Your task to perform on an android device: Add razer blackwidow to the cart on newegg, then select checkout. Image 0: 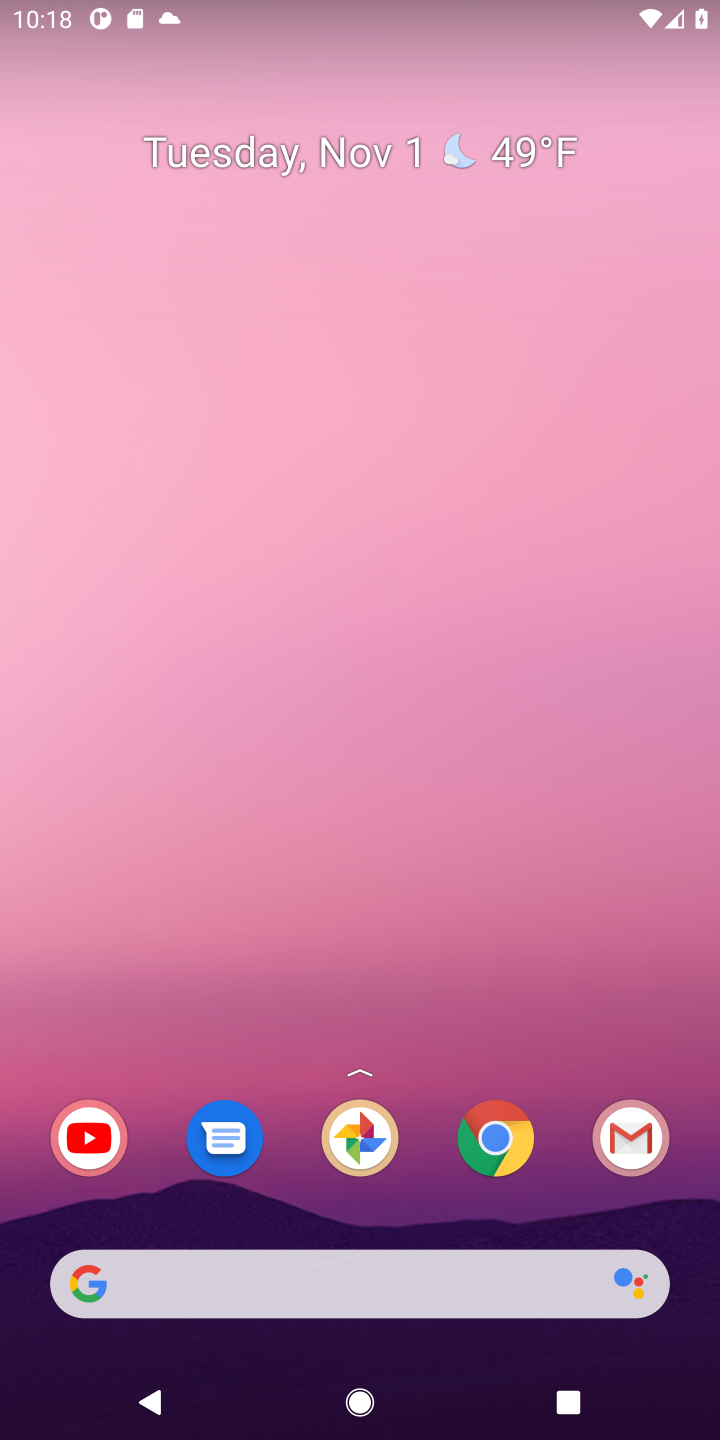
Step 0: click (498, 1141)
Your task to perform on an android device: Add razer blackwidow to the cart on newegg, then select checkout. Image 1: 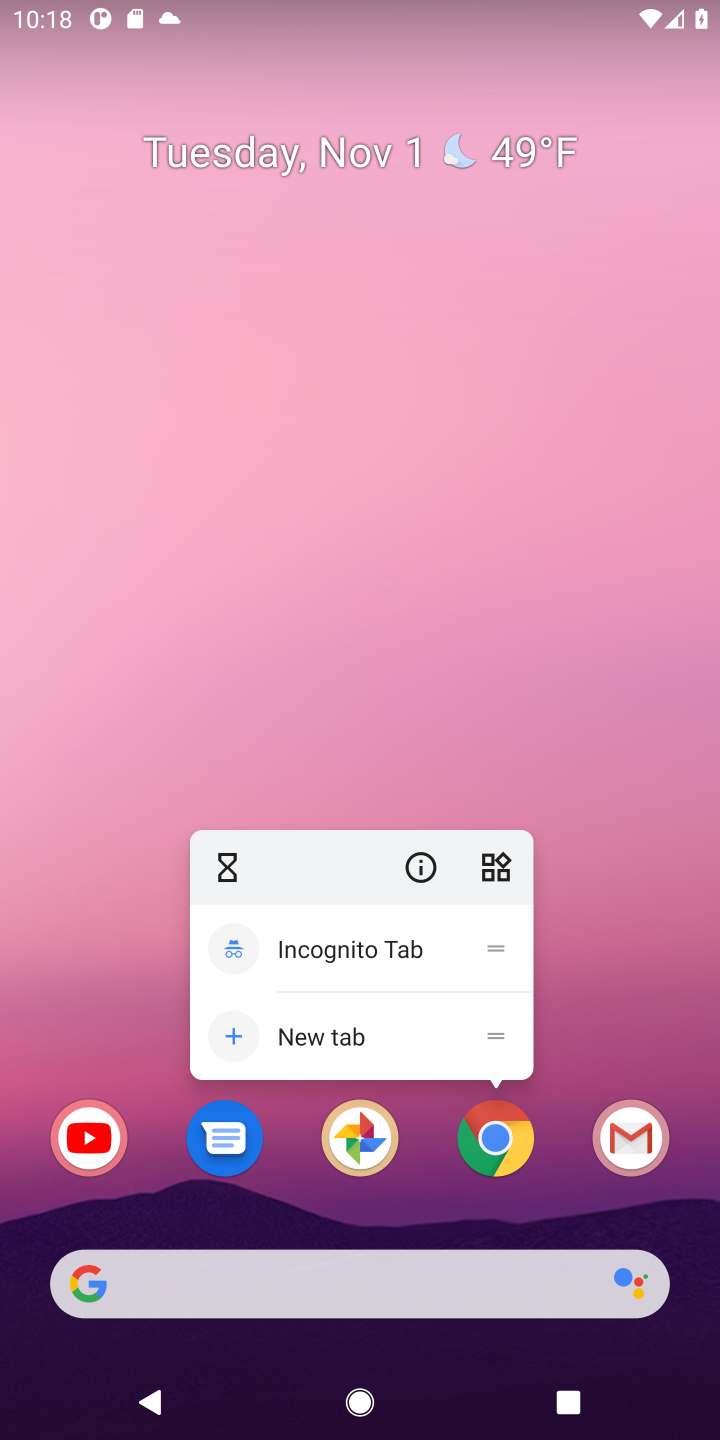
Step 1: click (497, 1136)
Your task to perform on an android device: Add razer blackwidow to the cart on newegg, then select checkout. Image 2: 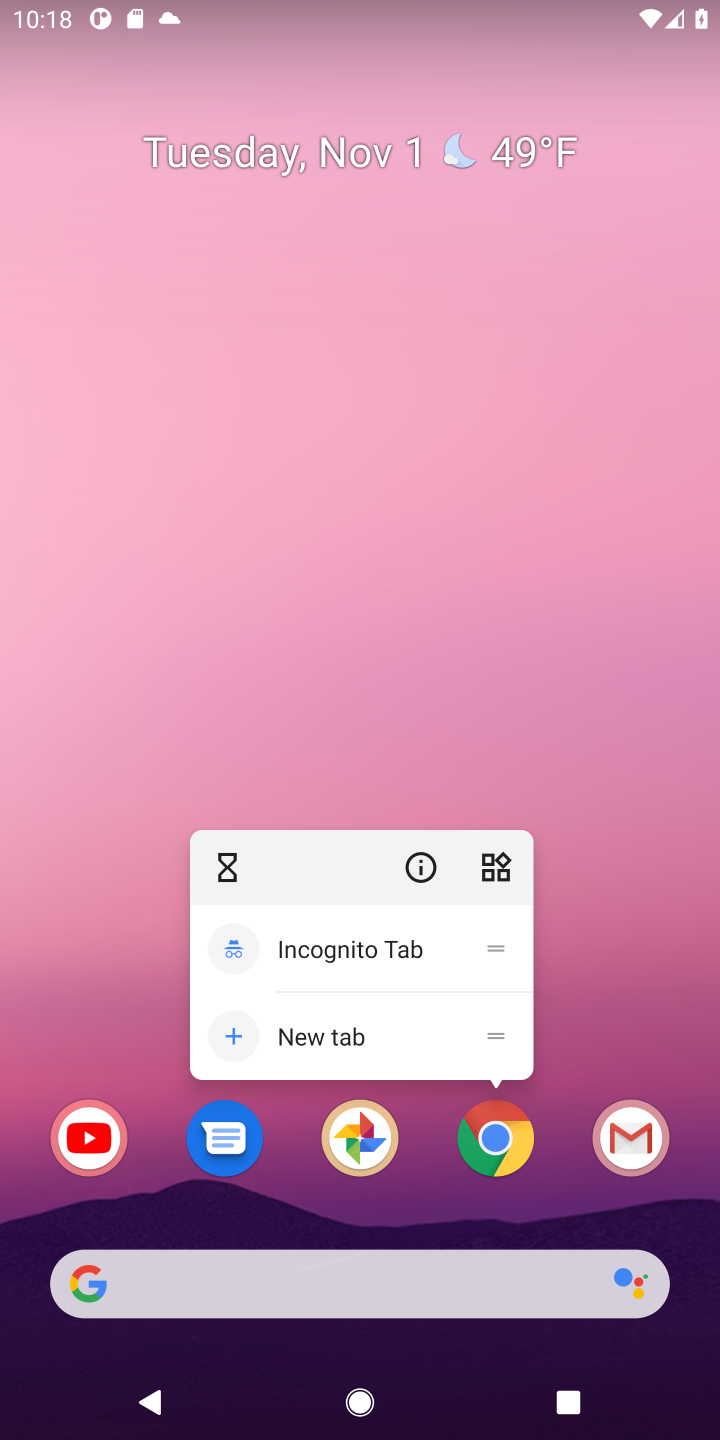
Step 2: click (487, 1142)
Your task to perform on an android device: Add razer blackwidow to the cart on newegg, then select checkout. Image 3: 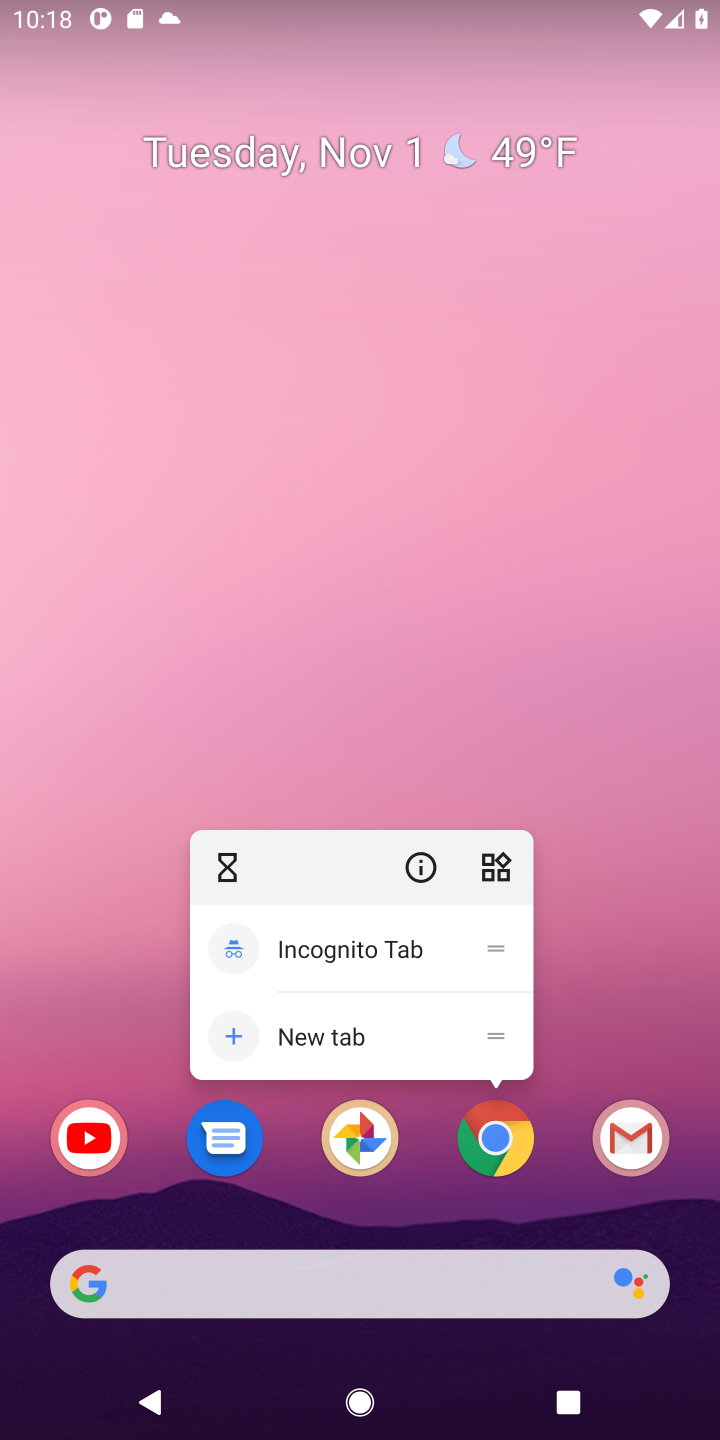
Step 3: click (499, 1134)
Your task to perform on an android device: Add razer blackwidow to the cart on newegg, then select checkout. Image 4: 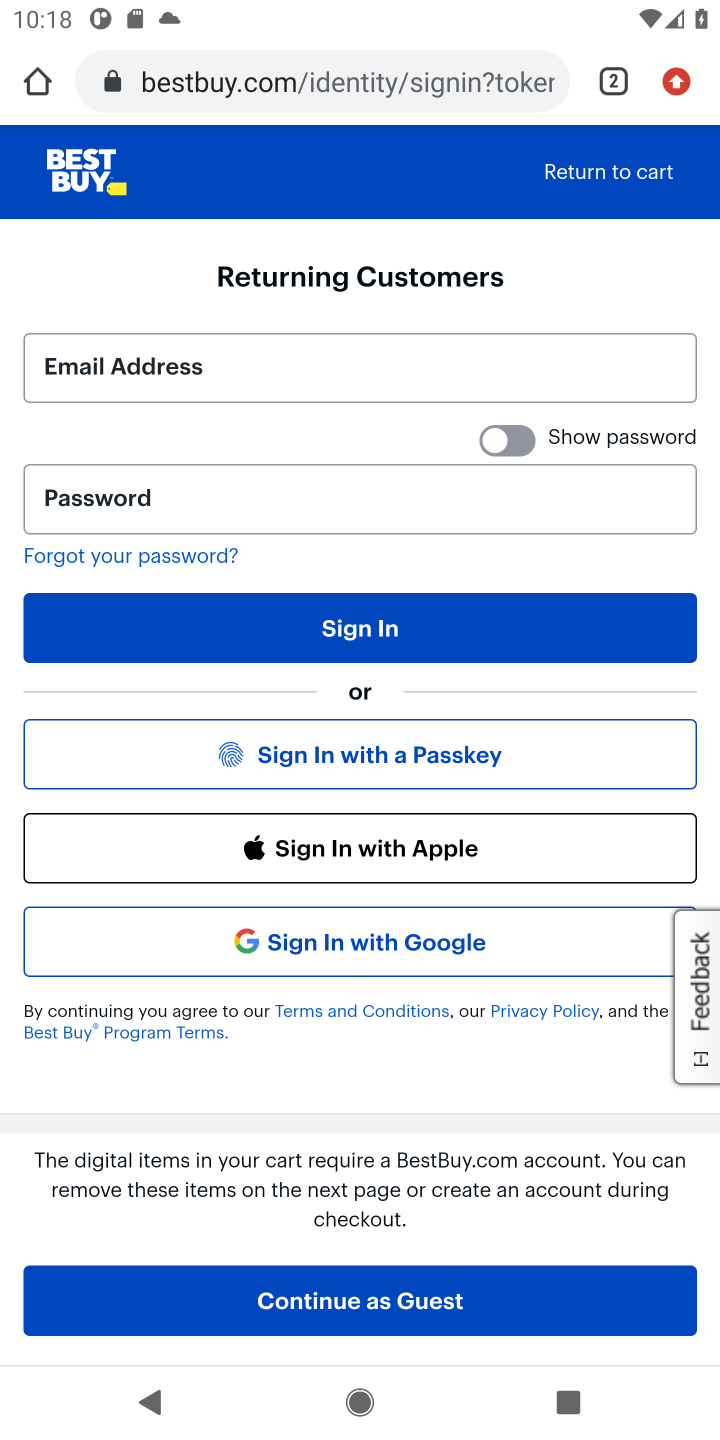
Step 4: click (338, 86)
Your task to perform on an android device: Add razer blackwidow to the cart on newegg, then select checkout. Image 5: 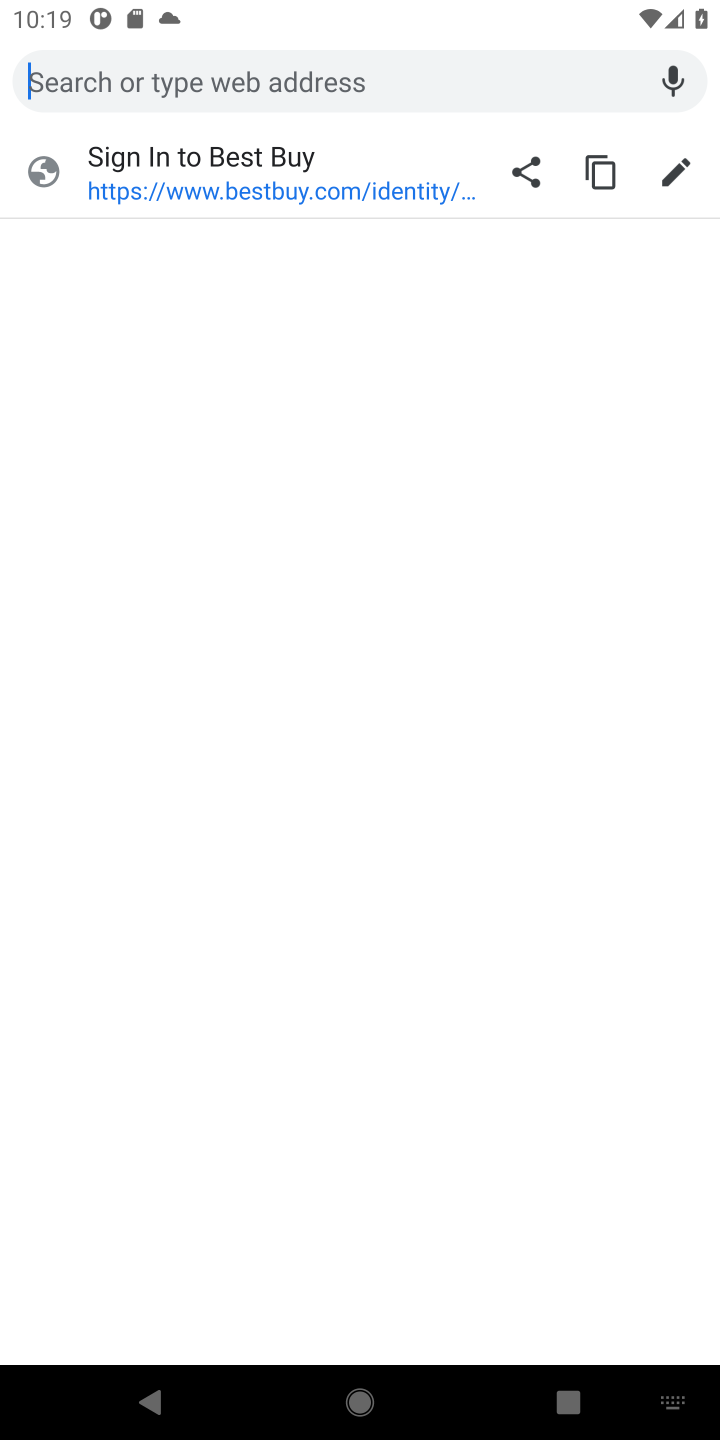
Step 5: type "newegg"
Your task to perform on an android device: Add razer blackwidow to the cart on newegg, then select checkout. Image 6: 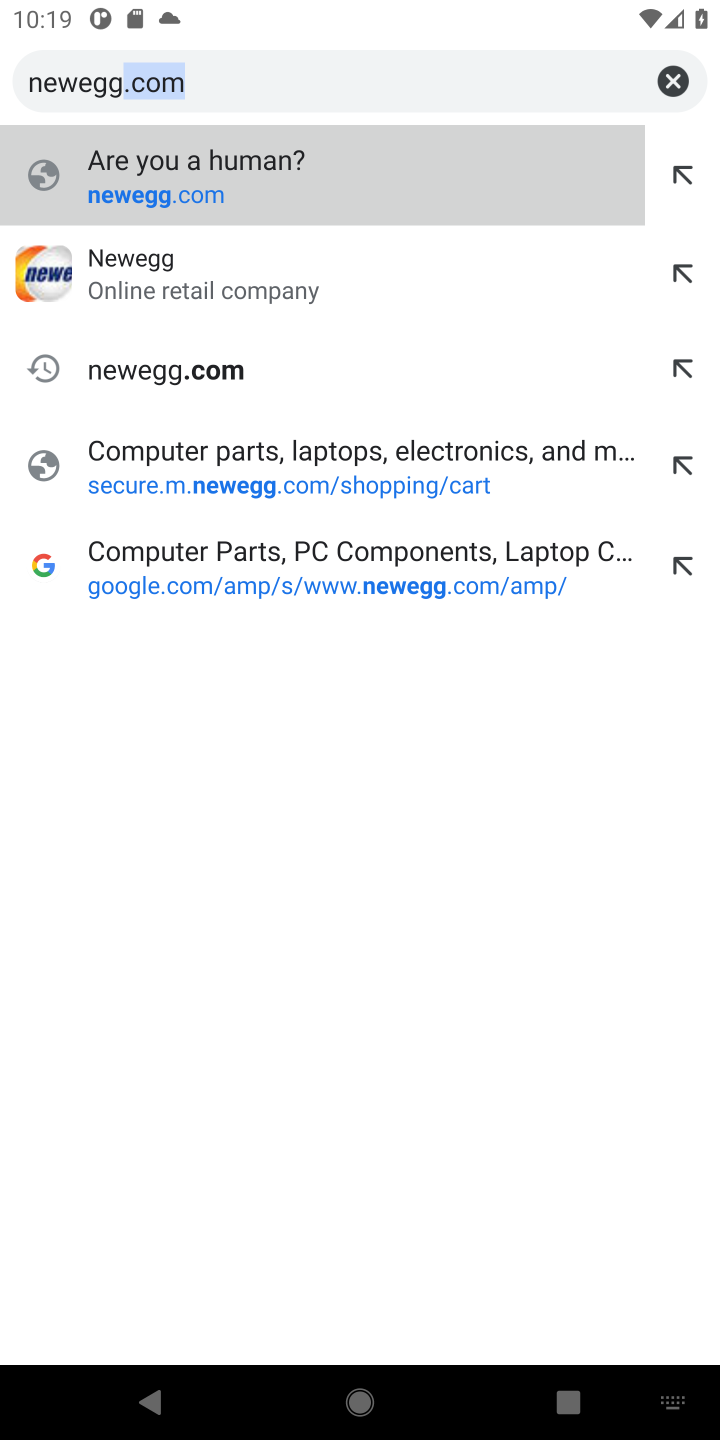
Step 6: click (165, 366)
Your task to perform on an android device: Add razer blackwidow to the cart on newegg, then select checkout. Image 7: 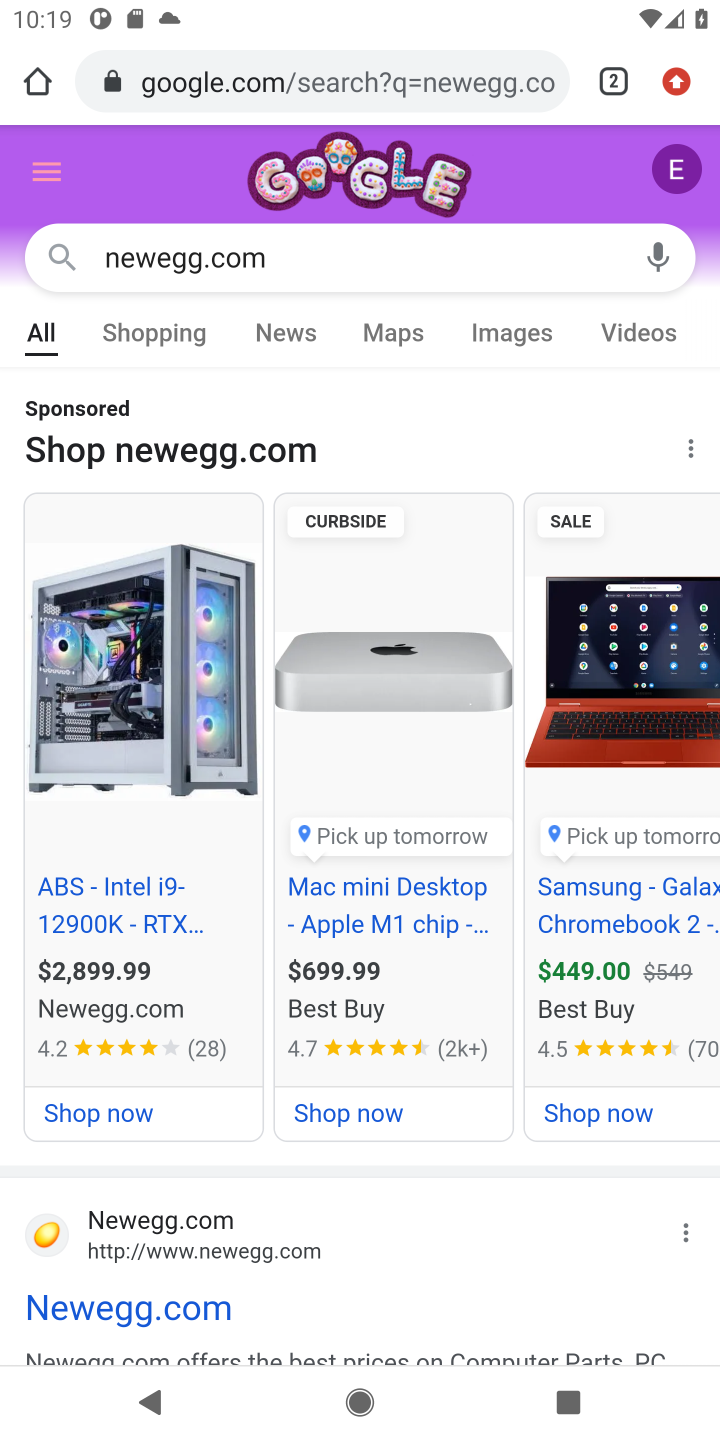
Step 7: click (302, 1254)
Your task to perform on an android device: Add razer blackwidow to the cart on newegg, then select checkout. Image 8: 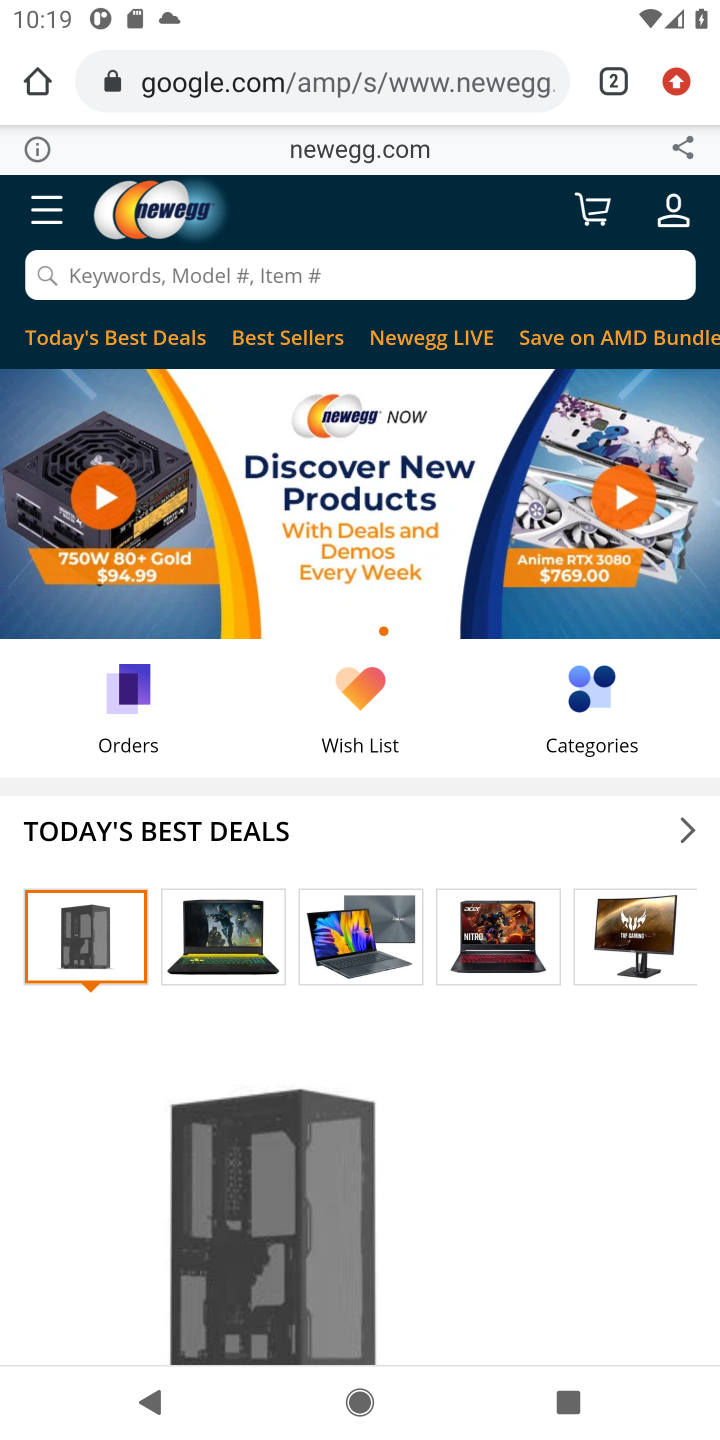
Step 8: click (486, 282)
Your task to perform on an android device: Add razer blackwidow to the cart on newegg, then select checkout. Image 9: 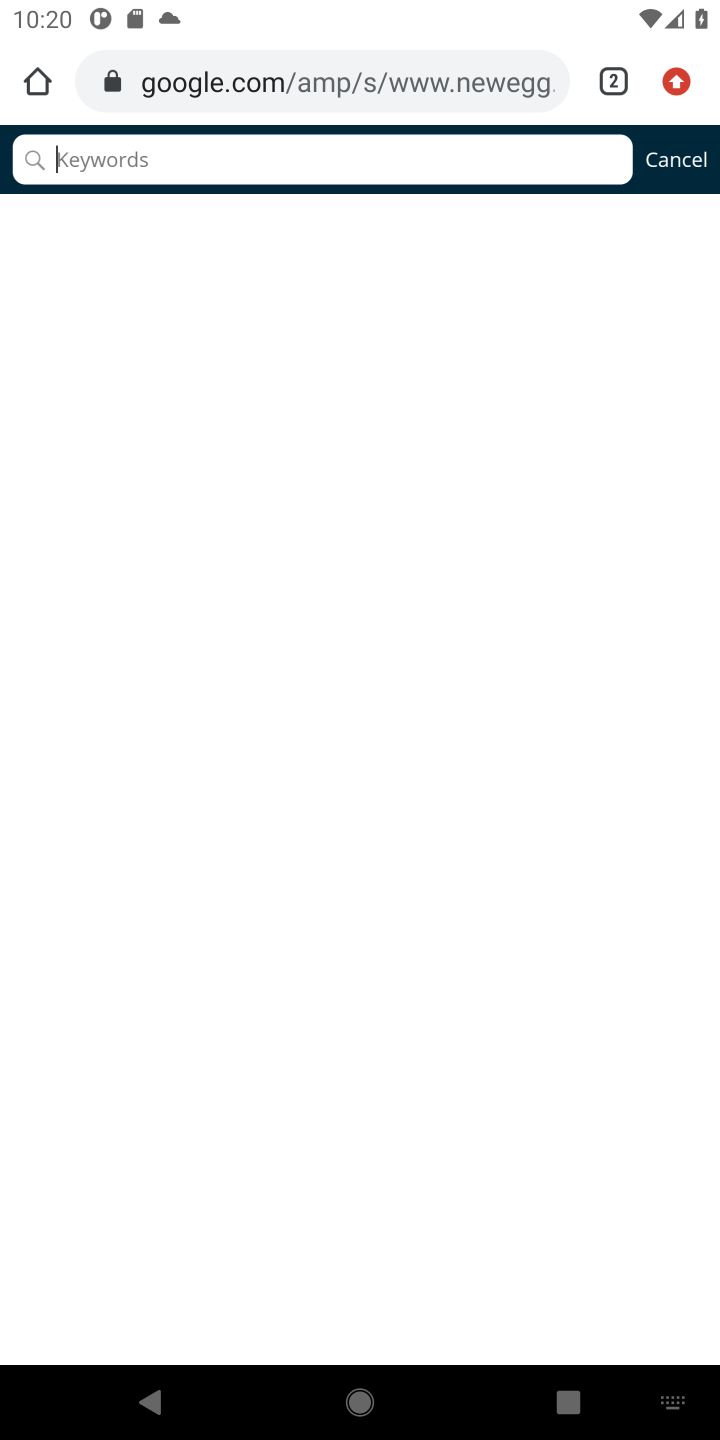
Step 9: type "razer blackwidow"
Your task to perform on an android device: Add razer blackwidow to the cart on newegg, then select checkout. Image 10: 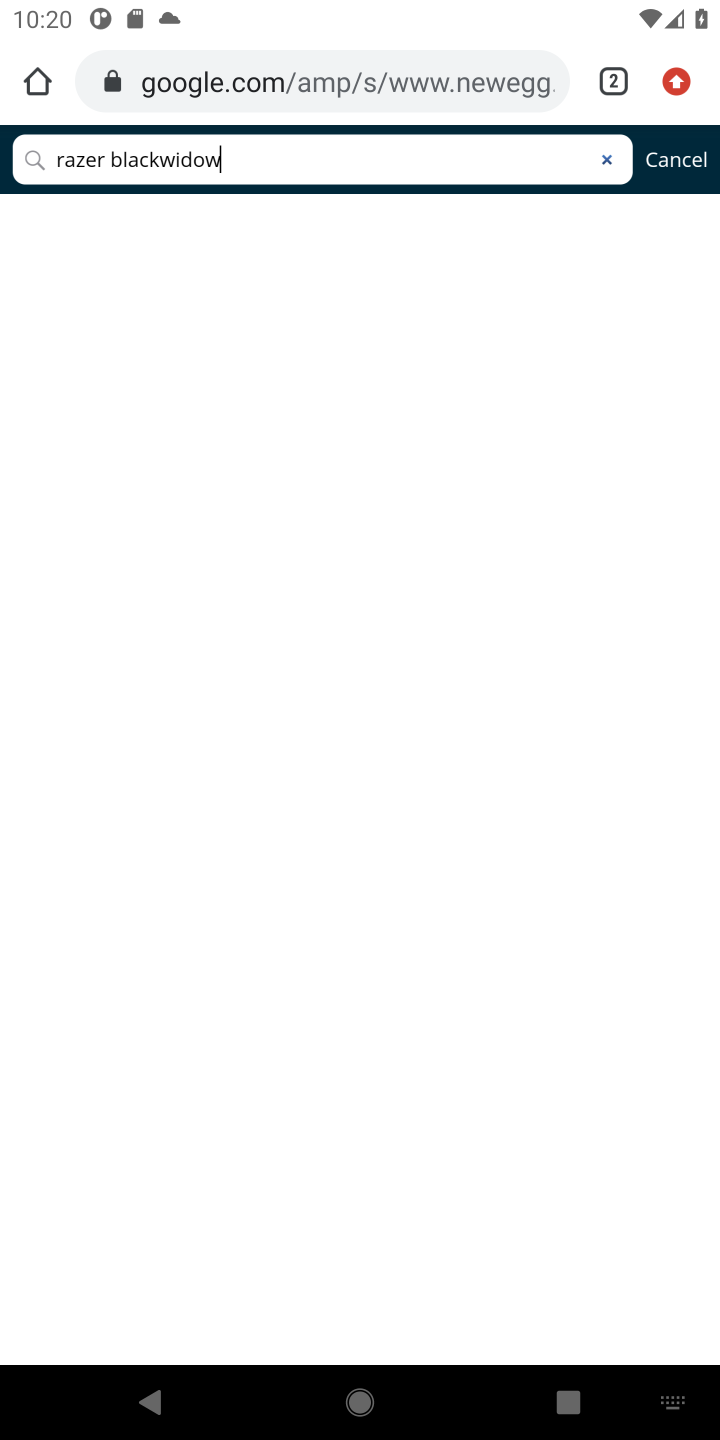
Step 10: task complete